Your task to perform on an android device: What is the news today? Image 0: 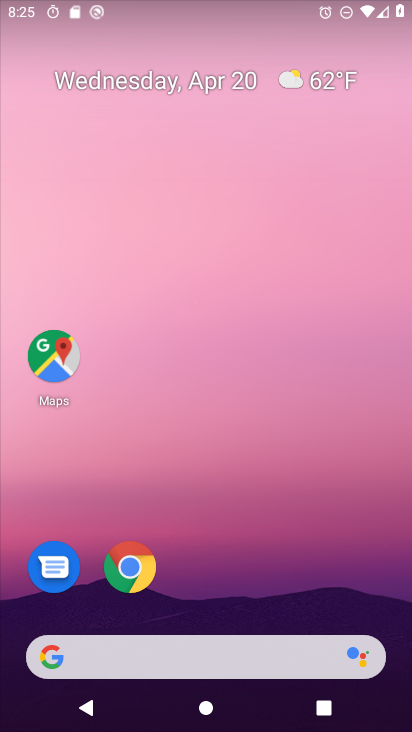
Step 0: drag from (16, 254) to (367, 352)
Your task to perform on an android device: What is the news today? Image 1: 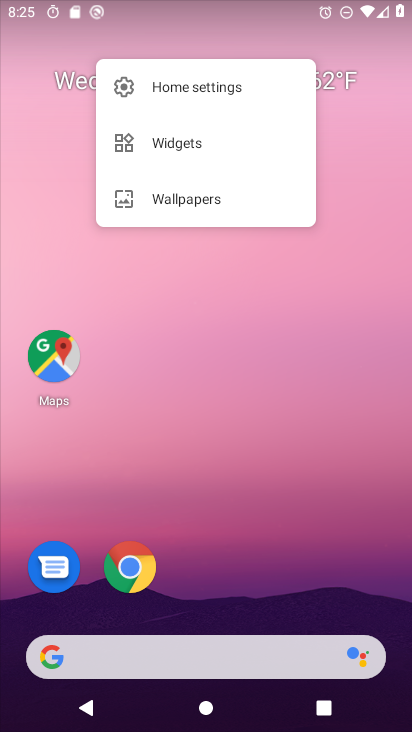
Step 1: task complete